Your task to perform on an android device: What's the weather? Image 0: 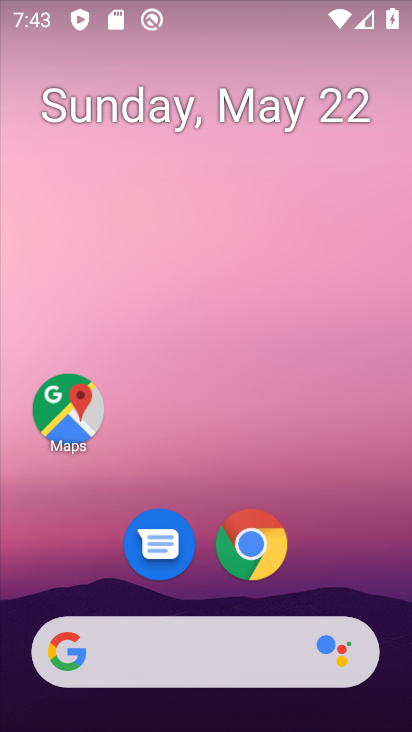
Step 0: click (261, 543)
Your task to perform on an android device: What's the weather? Image 1: 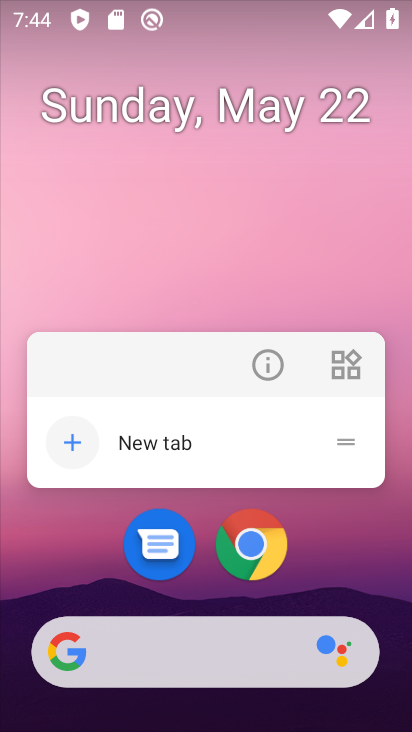
Step 1: click (251, 553)
Your task to perform on an android device: What's the weather? Image 2: 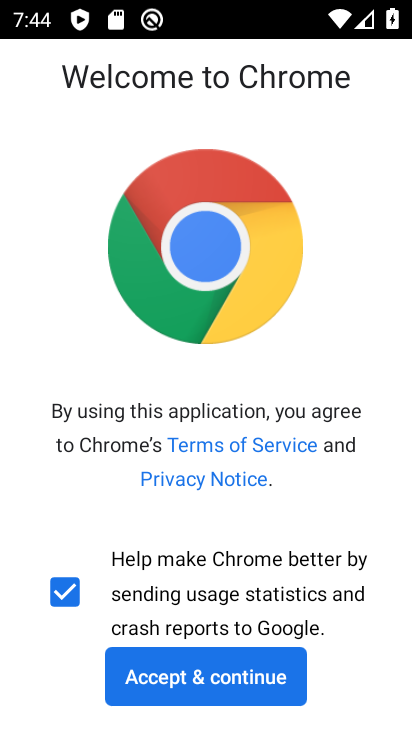
Step 2: click (251, 690)
Your task to perform on an android device: What's the weather? Image 3: 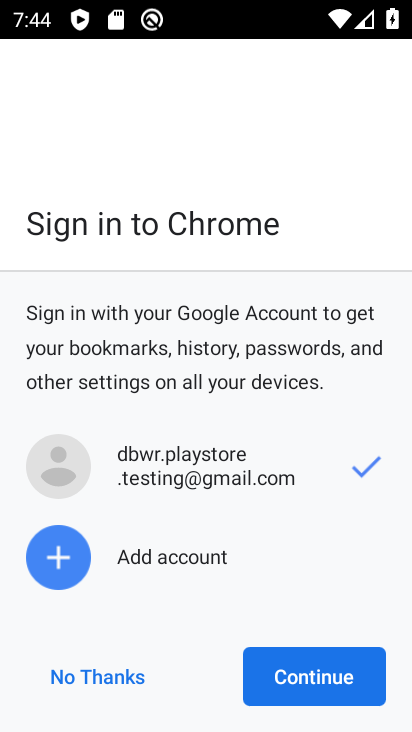
Step 3: click (294, 670)
Your task to perform on an android device: What's the weather? Image 4: 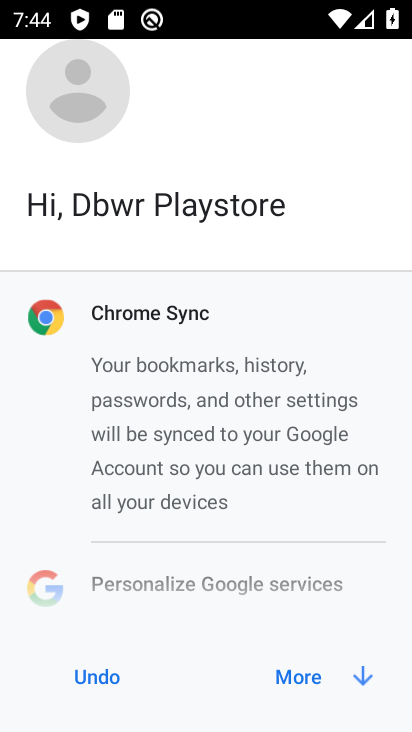
Step 4: click (294, 670)
Your task to perform on an android device: What's the weather? Image 5: 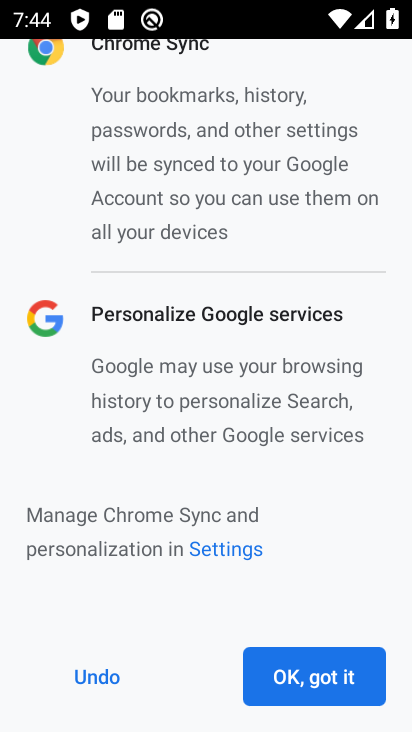
Step 5: click (294, 670)
Your task to perform on an android device: What's the weather? Image 6: 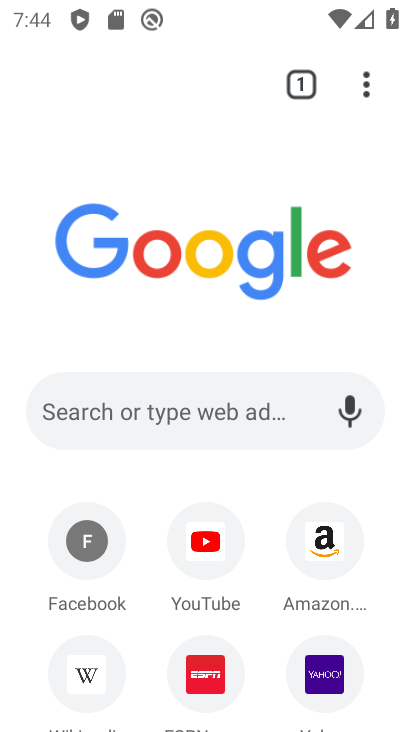
Step 6: click (150, 414)
Your task to perform on an android device: What's the weather? Image 7: 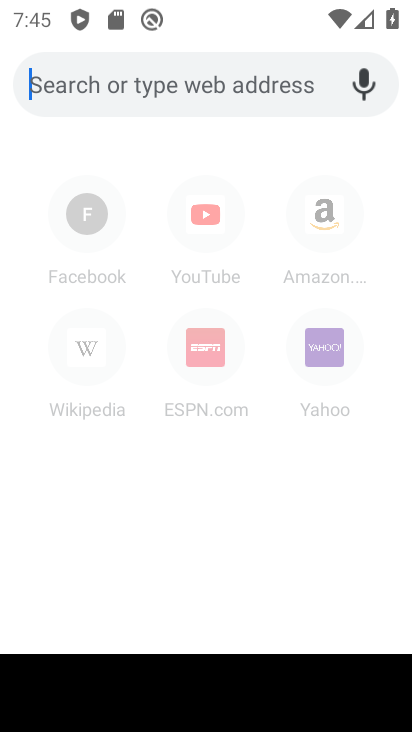
Step 7: type "weather"
Your task to perform on an android device: What's the weather? Image 8: 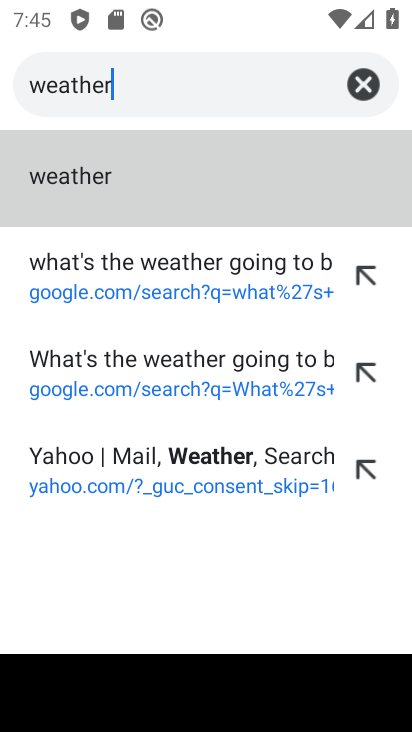
Step 8: click (81, 163)
Your task to perform on an android device: What's the weather? Image 9: 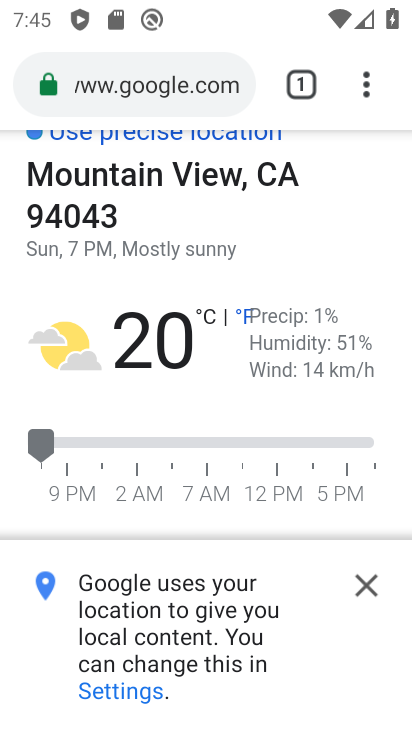
Step 9: task complete